Your task to perform on an android device: Show me popular videos on Youtube Image 0: 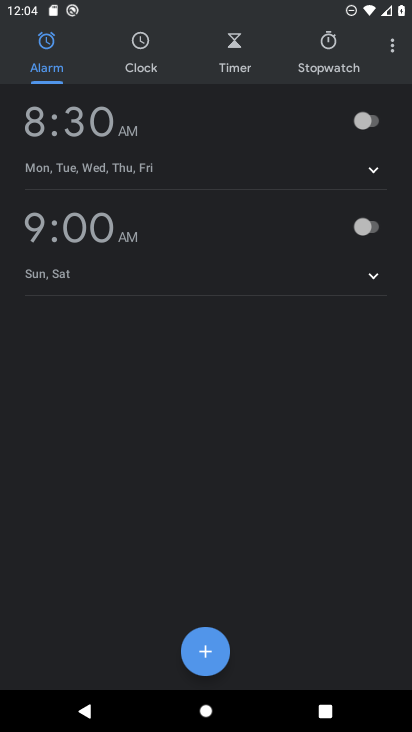
Step 0: press home button
Your task to perform on an android device: Show me popular videos on Youtube Image 1: 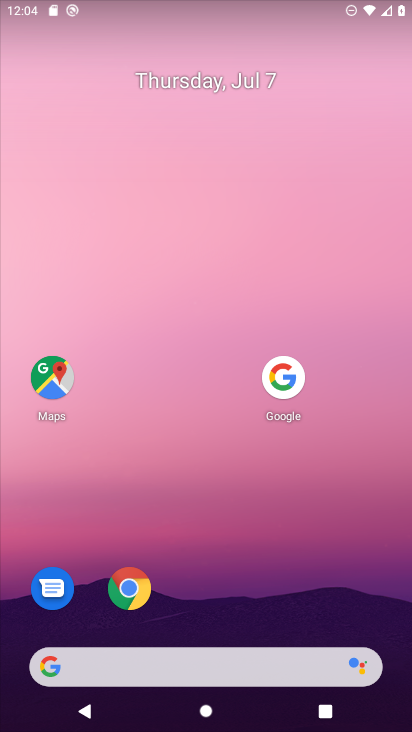
Step 1: drag from (213, 653) to (311, 43)
Your task to perform on an android device: Show me popular videos on Youtube Image 2: 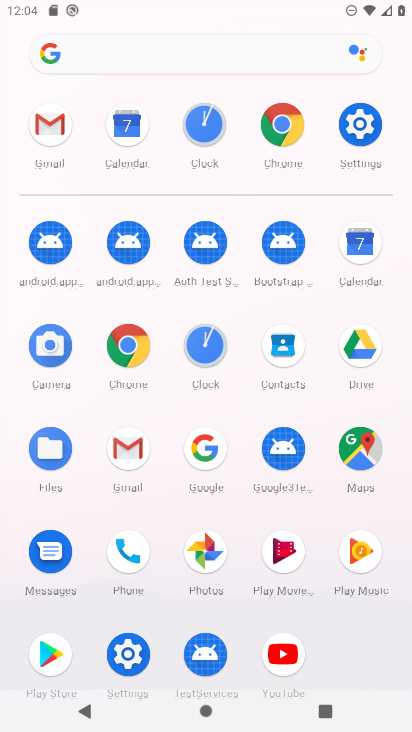
Step 2: click (280, 650)
Your task to perform on an android device: Show me popular videos on Youtube Image 3: 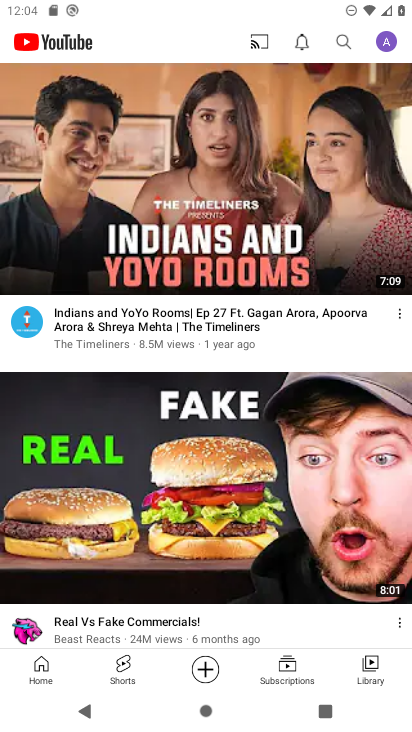
Step 3: click (45, 658)
Your task to perform on an android device: Show me popular videos on Youtube Image 4: 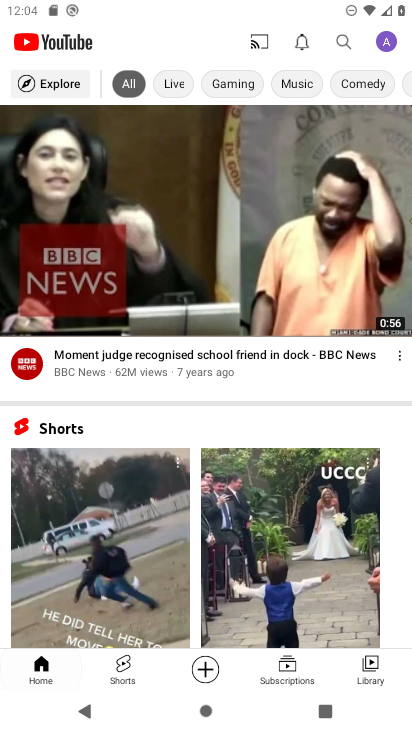
Step 4: task complete